Your task to perform on an android device: turn on the 12-hour format for clock Image 0: 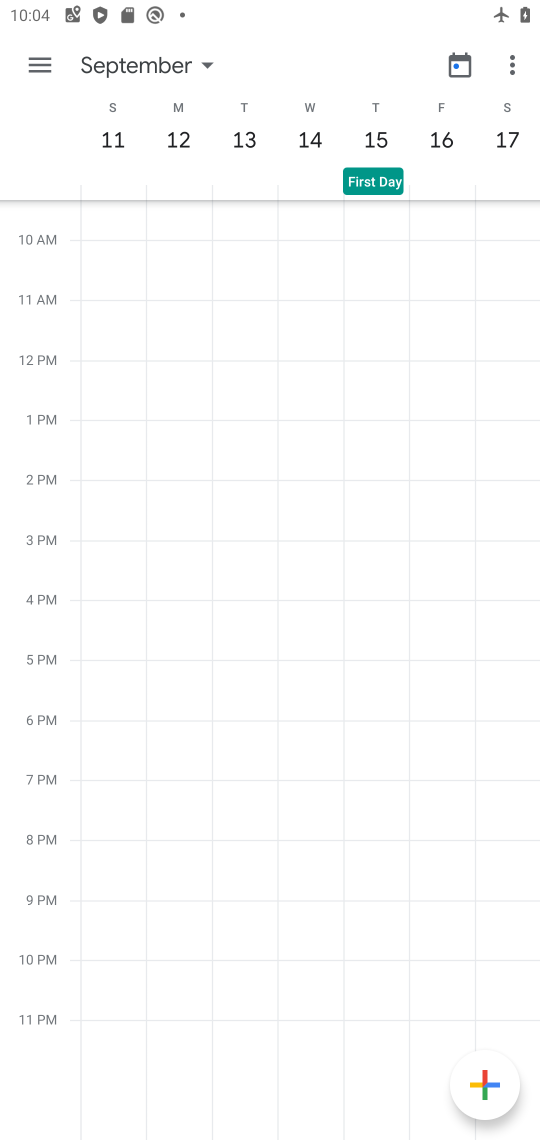
Step 0: press back button
Your task to perform on an android device: turn on the 12-hour format for clock Image 1: 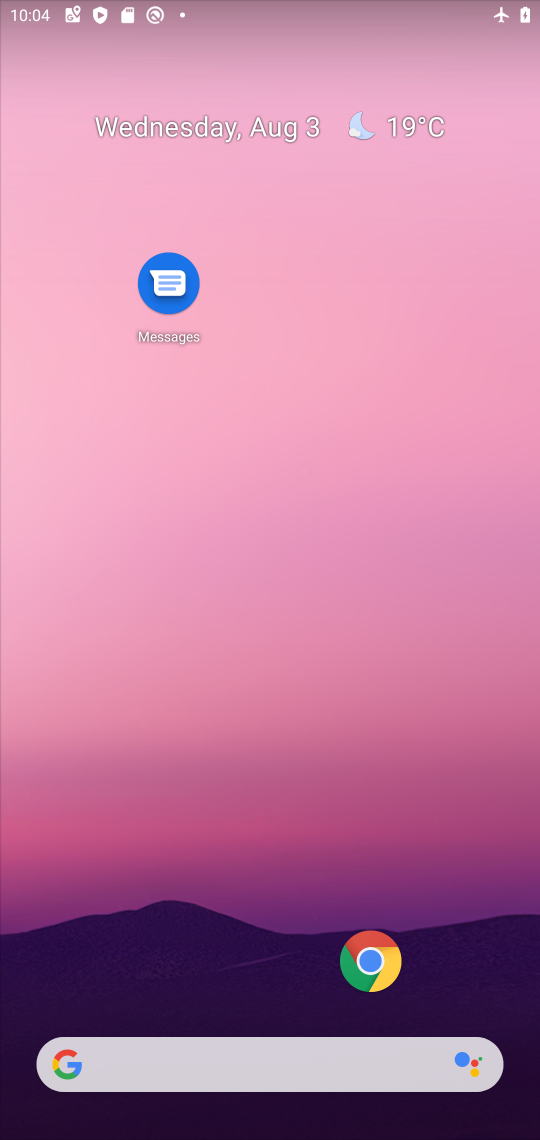
Step 1: drag from (278, 1018) to (245, 277)
Your task to perform on an android device: turn on the 12-hour format for clock Image 2: 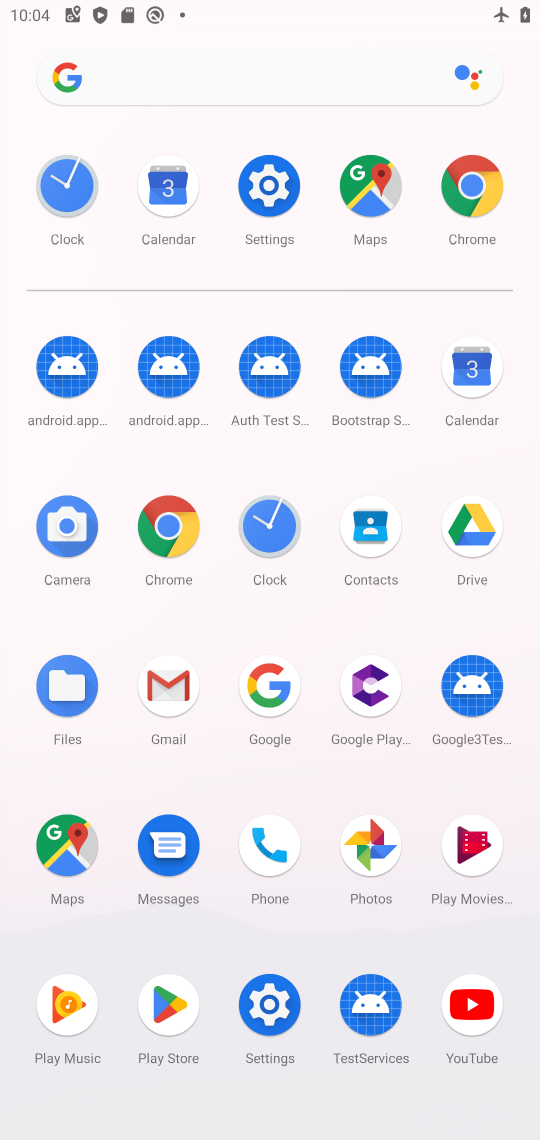
Step 2: click (256, 546)
Your task to perform on an android device: turn on the 12-hour format for clock Image 3: 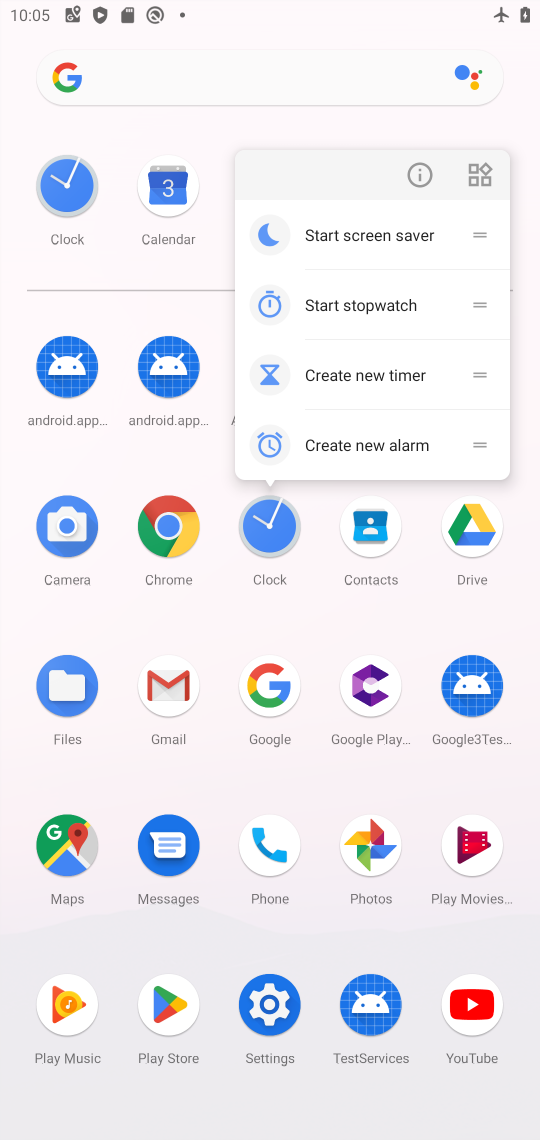
Step 3: click (275, 525)
Your task to perform on an android device: turn on the 12-hour format for clock Image 4: 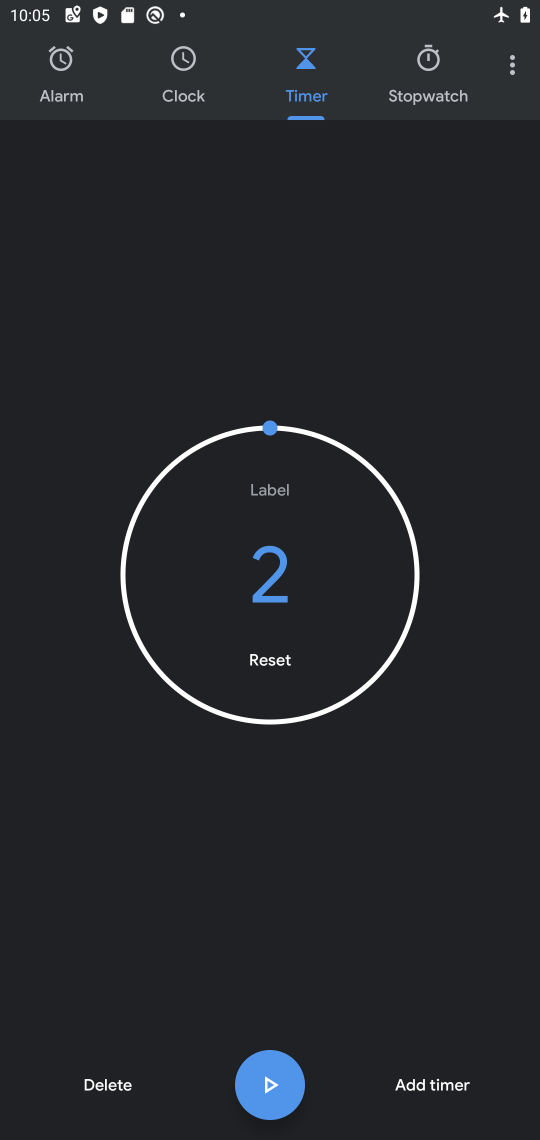
Step 4: drag from (490, 63) to (140, 855)
Your task to perform on an android device: turn on the 12-hour format for clock Image 5: 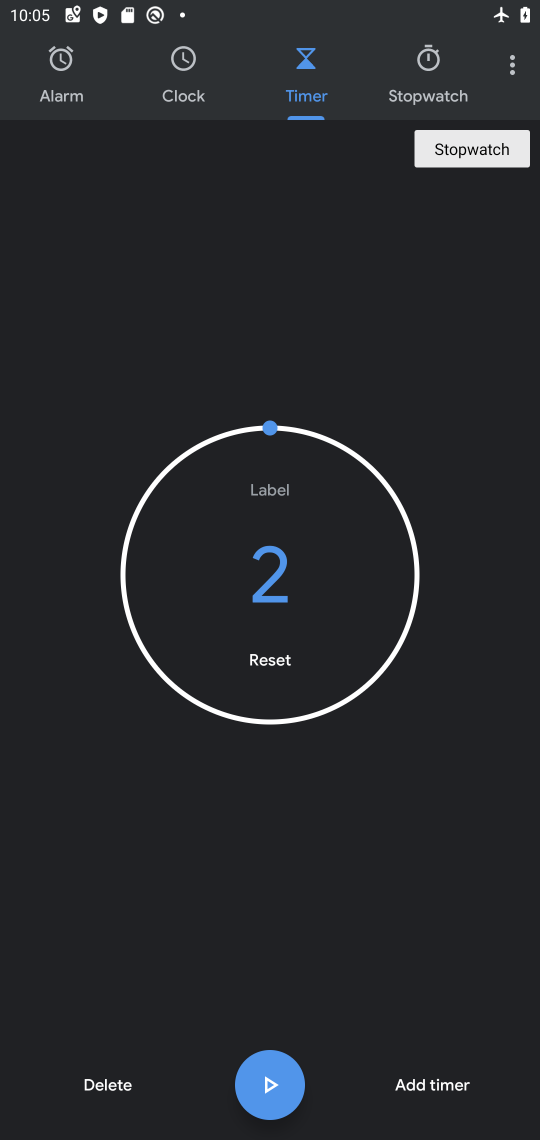
Step 5: click (511, 63)
Your task to perform on an android device: turn on the 12-hour format for clock Image 6: 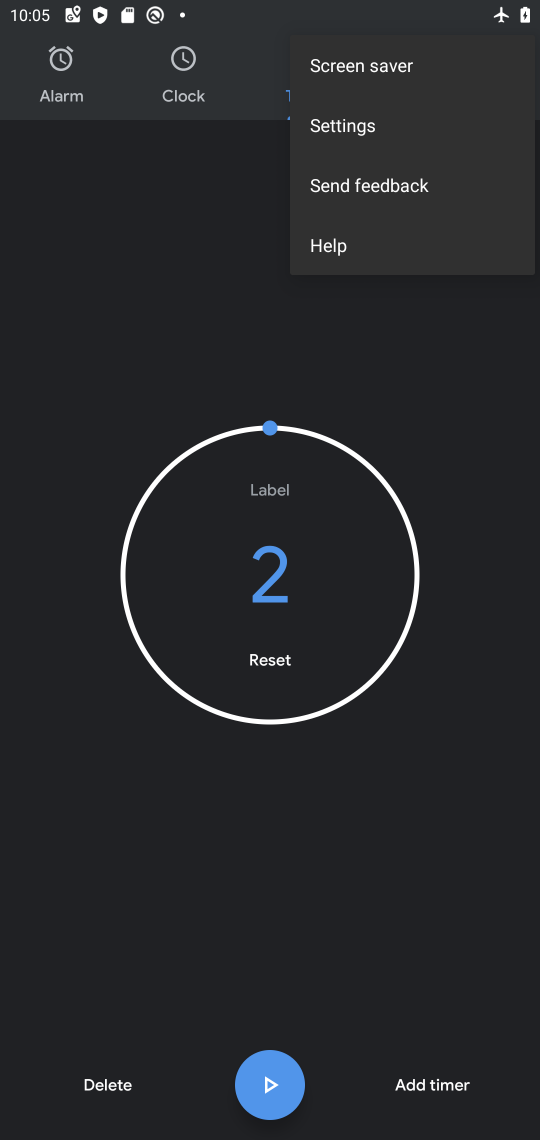
Step 6: click (351, 132)
Your task to perform on an android device: turn on the 12-hour format for clock Image 7: 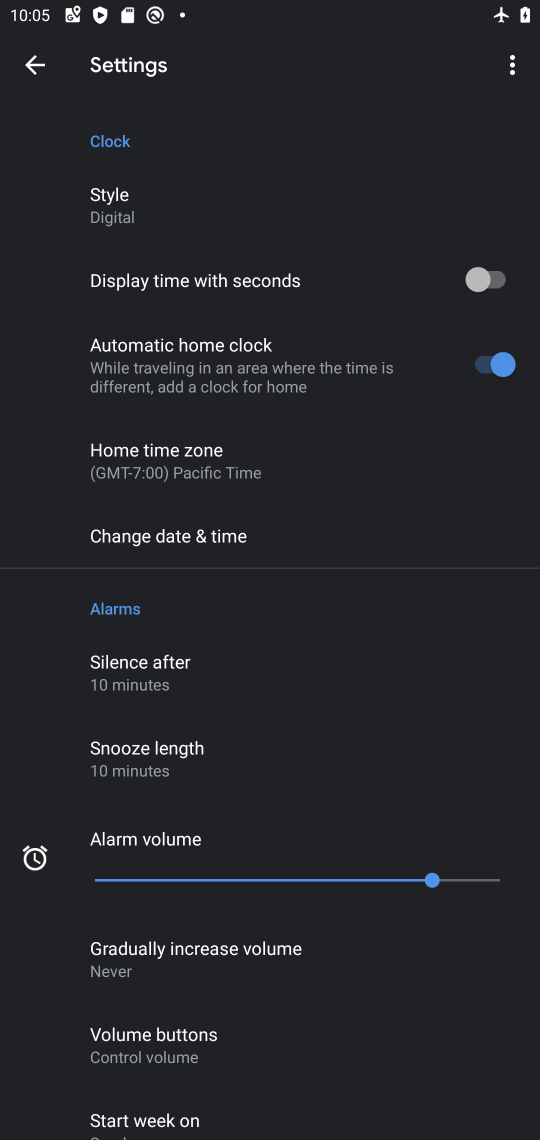
Step 7: click (202, 536)
Your task to perform on an android device: turn on the 12-hour format for clock Image 8: 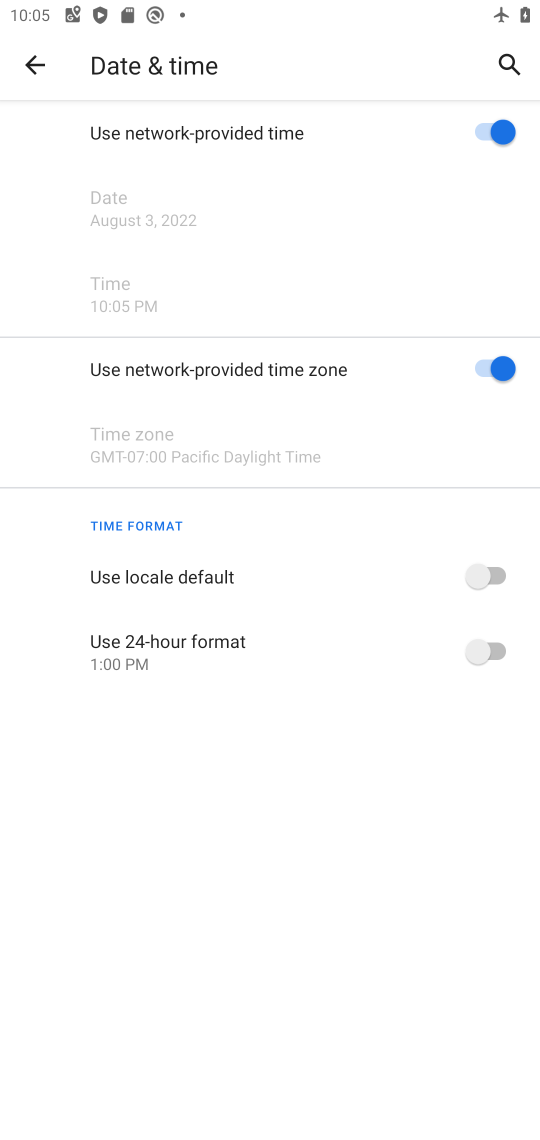
Step 8: task complete